Your task to perform on an android device: open app "Spotify: Music and Podcasts" Image 0: 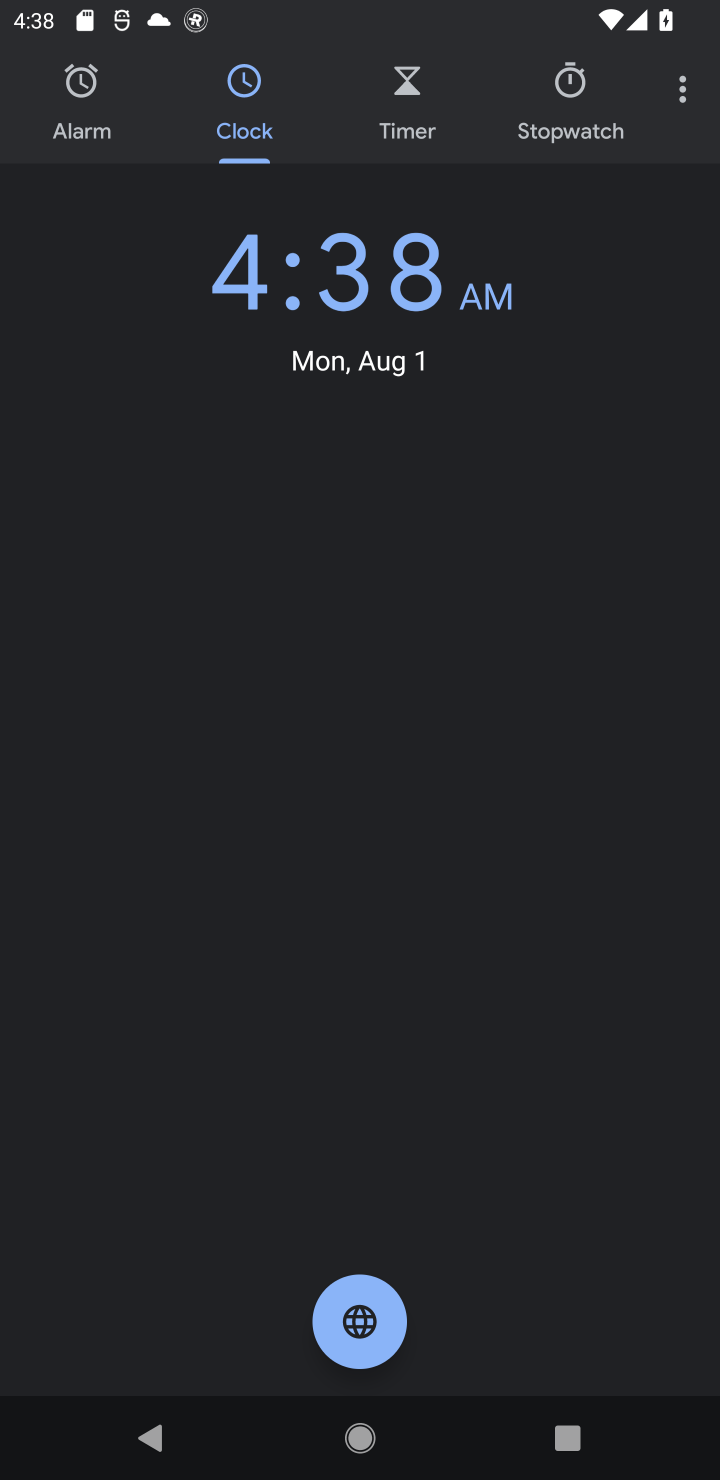
Step 0: press home button
Your task to perform on an android device: open app "Spotify: Music and Podcasts" Image 1: 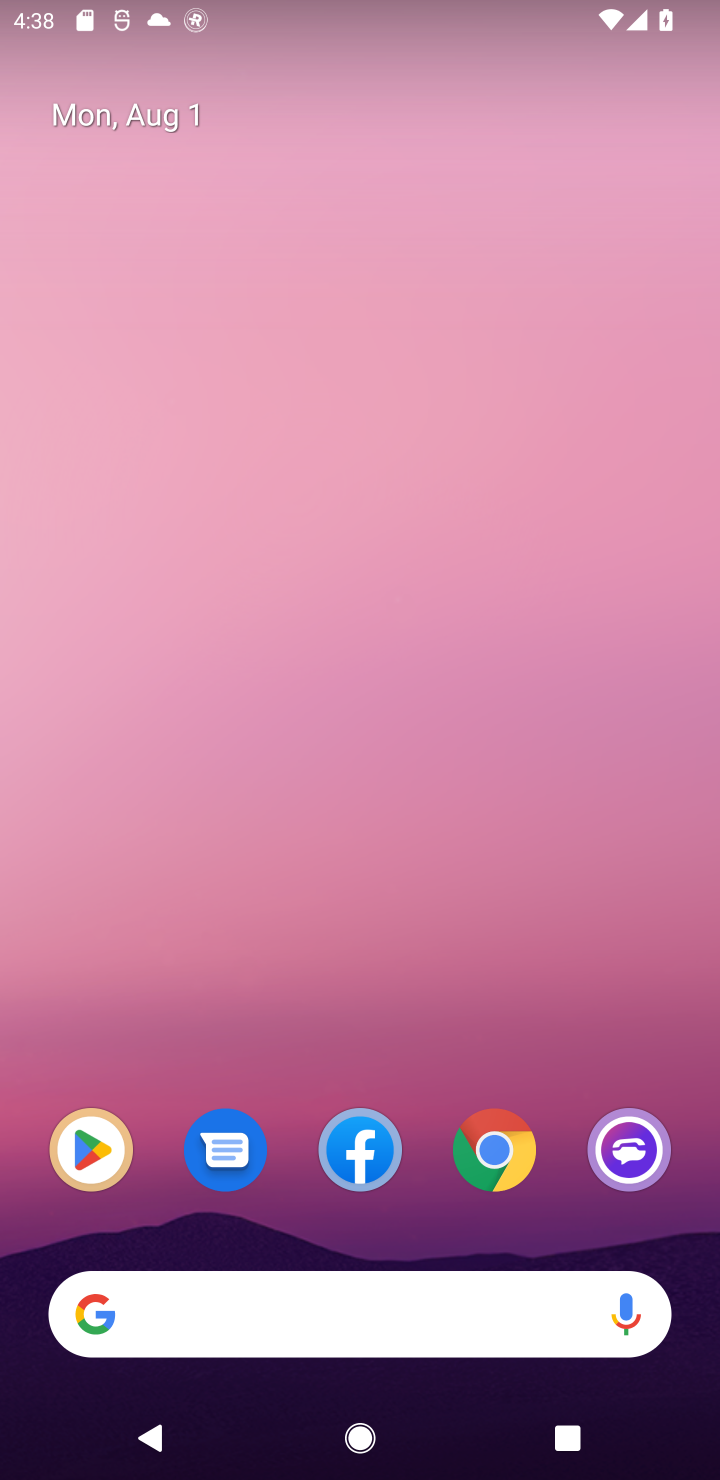
Step 1: click (110, 1142)
Your task to perform on an android device: open app "Spotify: Music and Podcasts" Image 2: 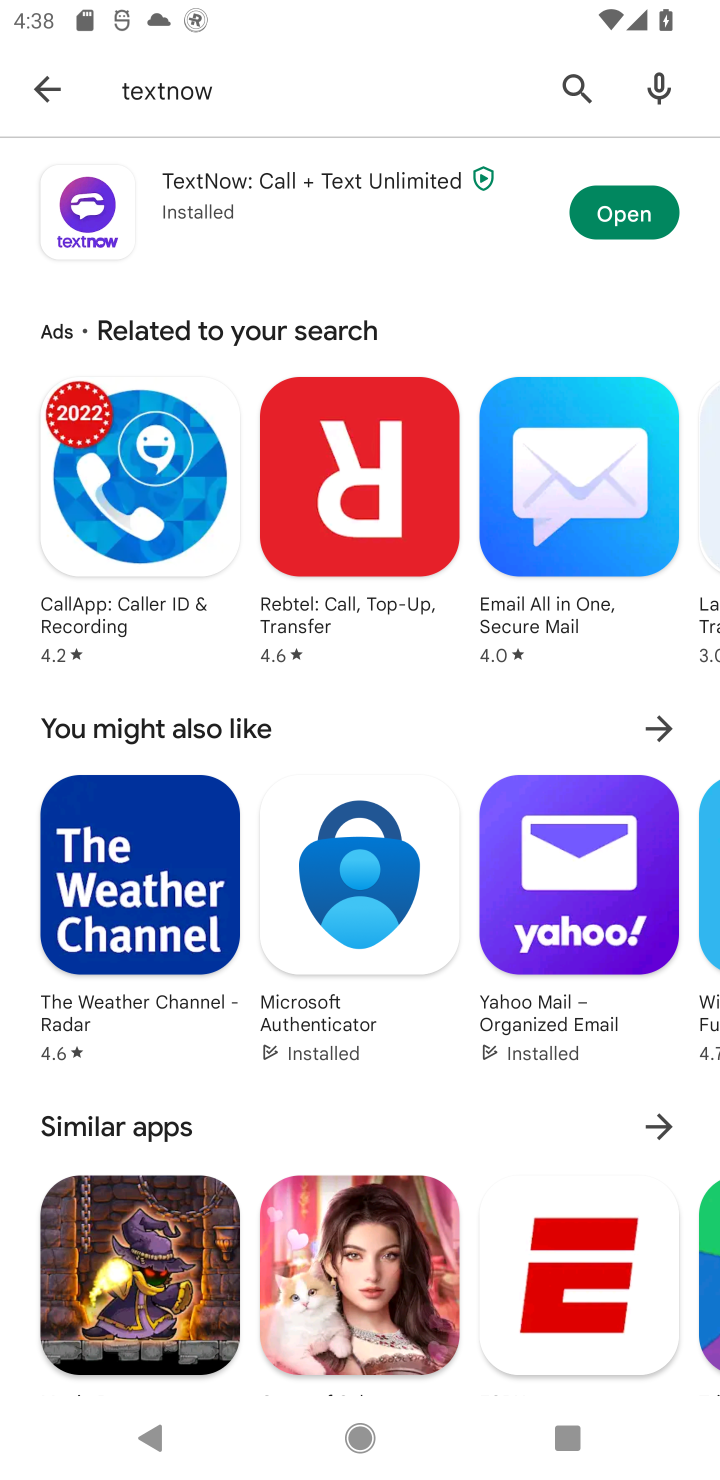
Step 2: click (578, 107)
Your task to perform on an android device: open app "Spotify: Music and Podcasts" Image 3: 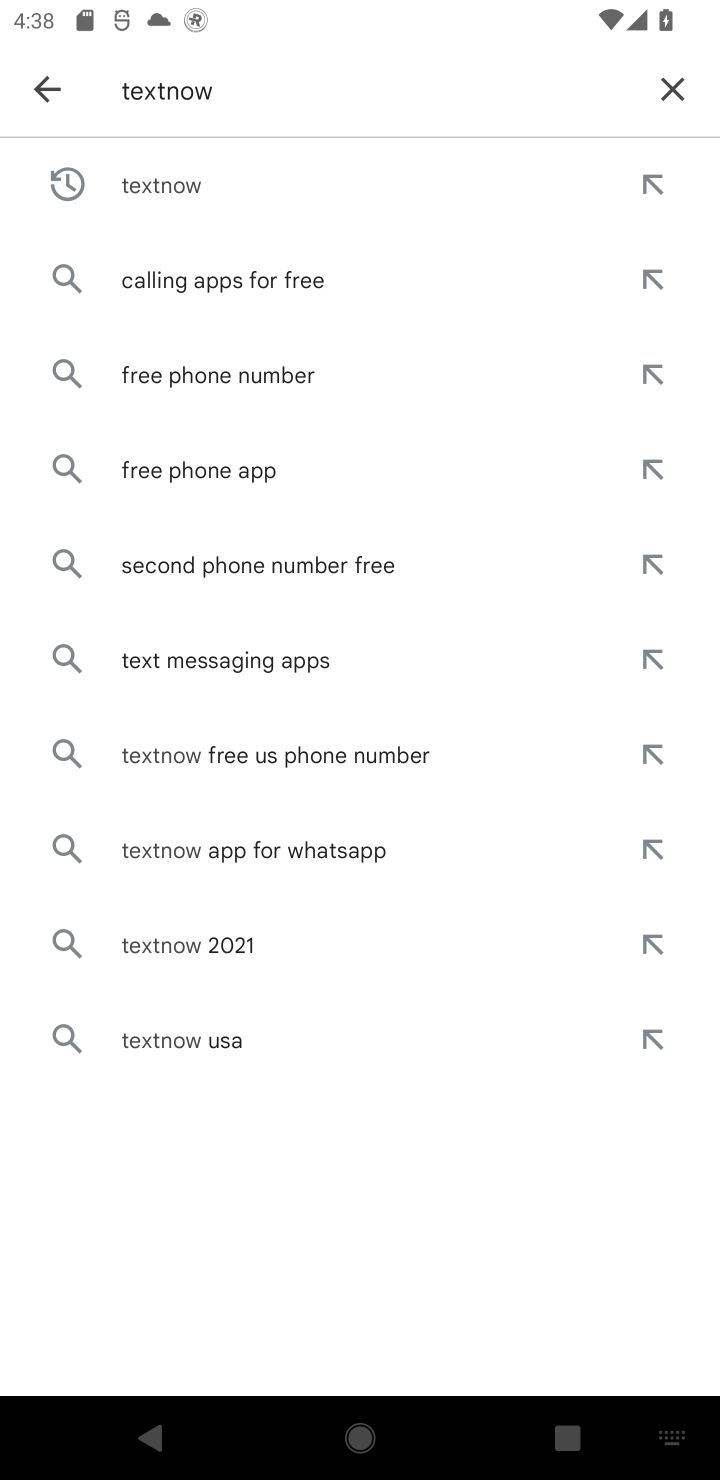
Step 3: click (674, 97)
Your task to perform on an android device: open app "Spotify: Music and Podcasts" Image 4: 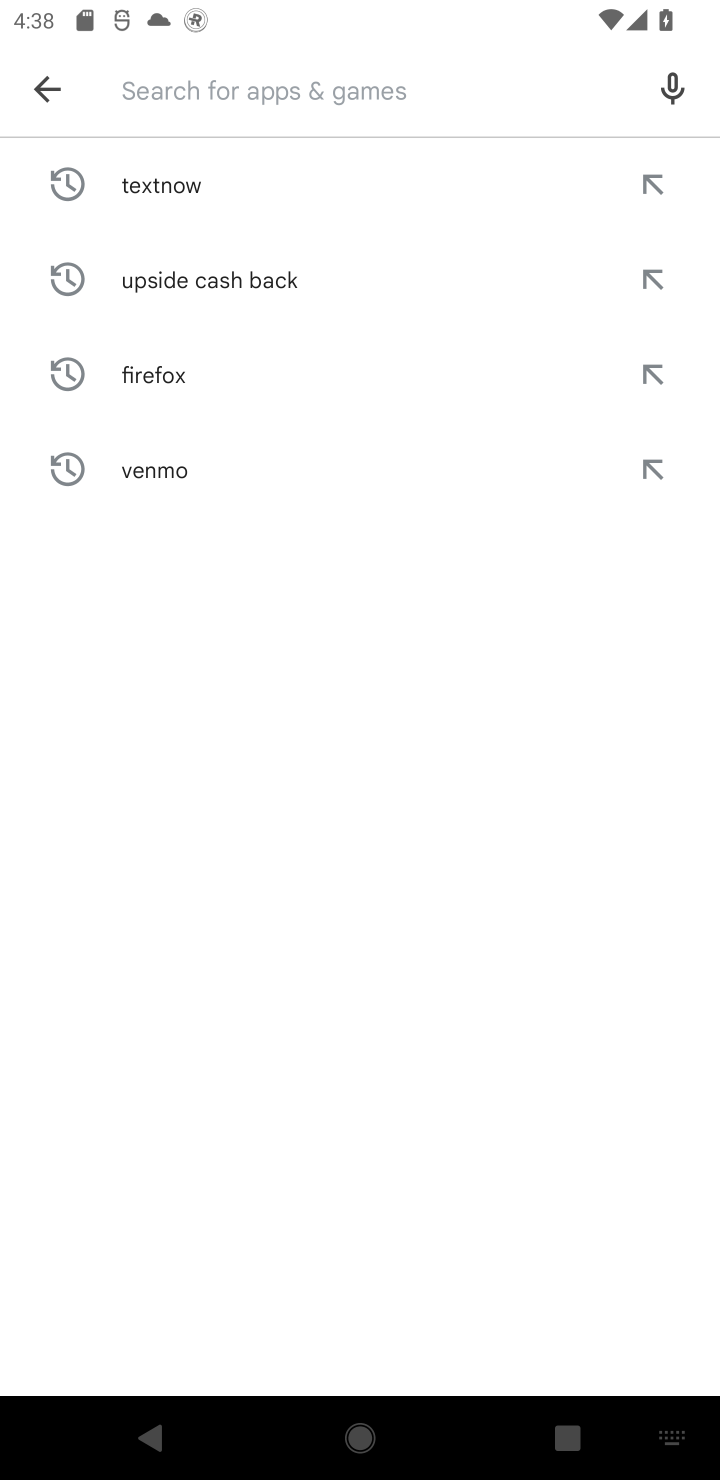
Step 4: type "spotify"
Your task to perform on an android device: open app "Spotify: Music and Podcasts" Image 5: 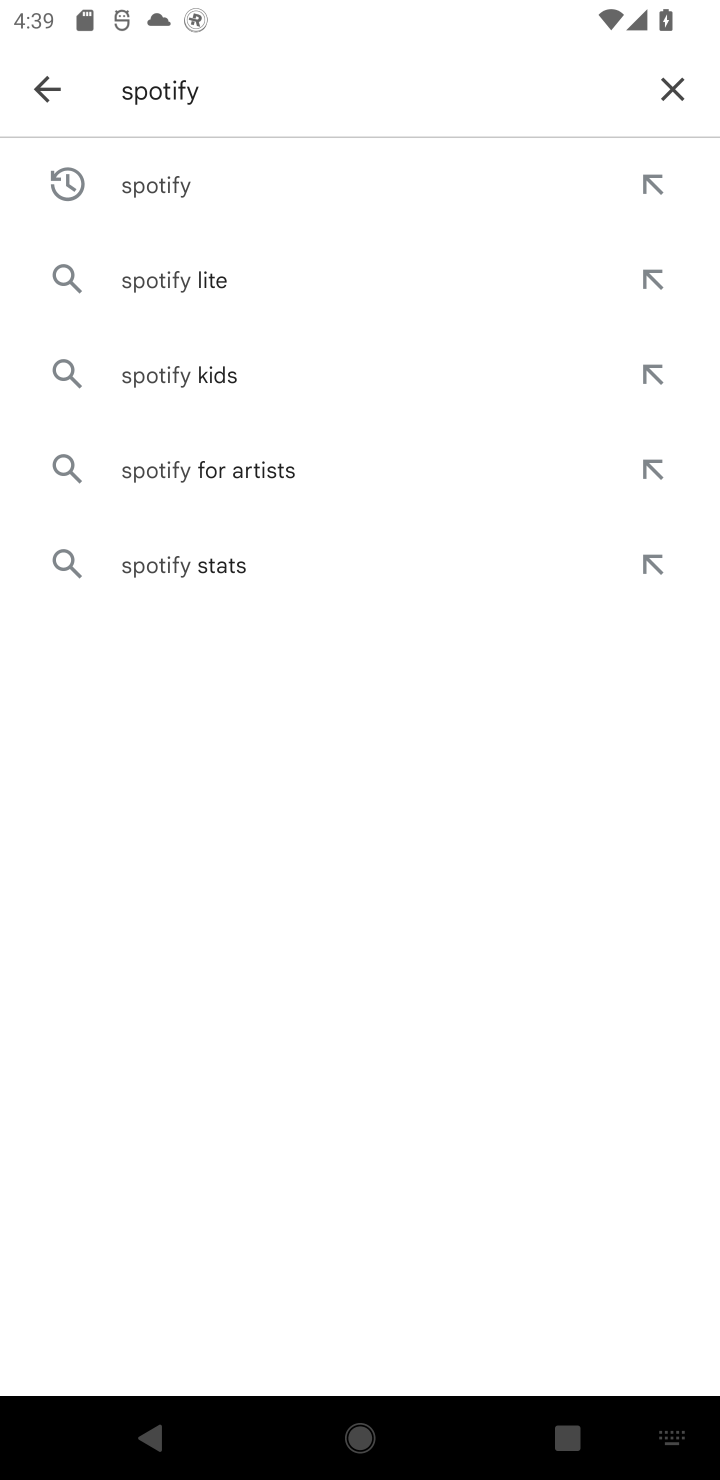
Step 5: click (216, 160)
Your task to perform on an android device: open app "Spotify: Music and Podcasts" Image 6: 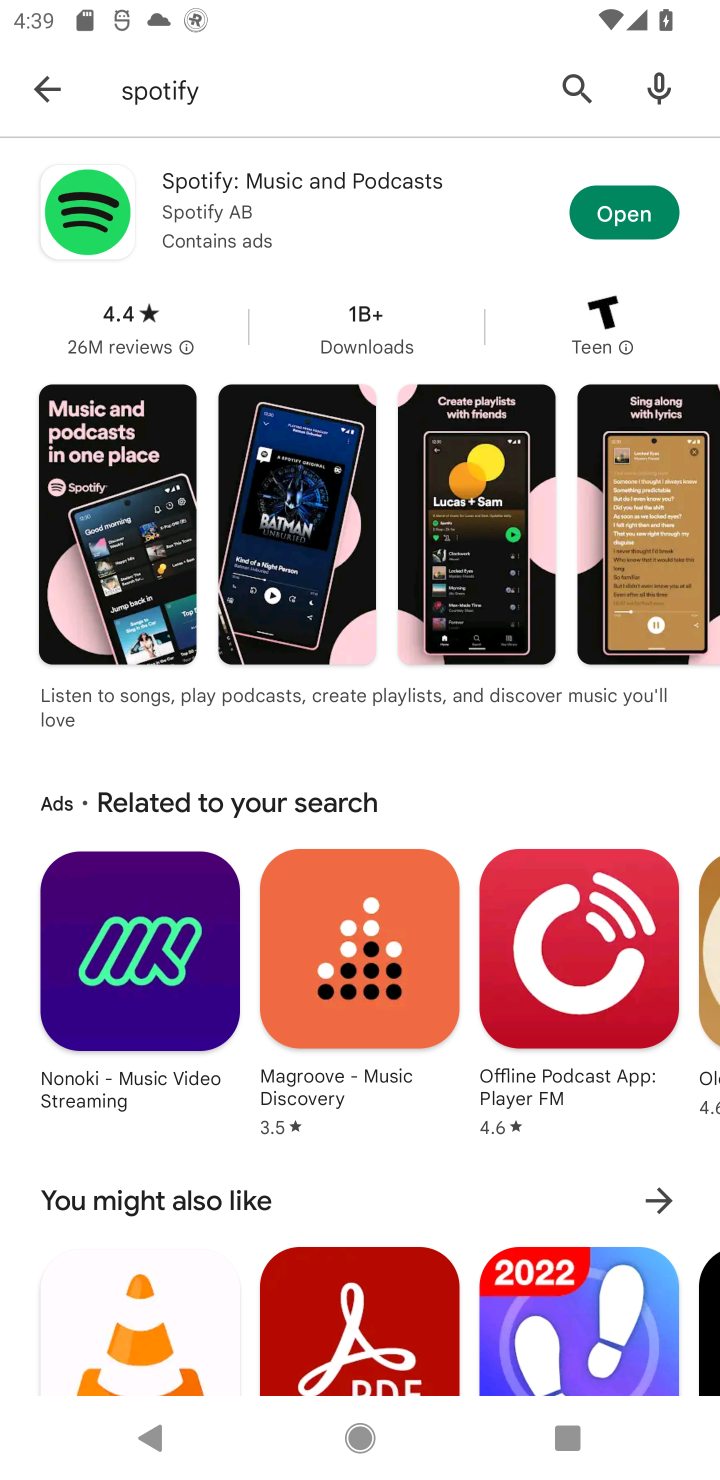
Step 6: click (607, 234)
Your task to perform on an android device: open app "Spotify: Music and Podcasts" Image 7: 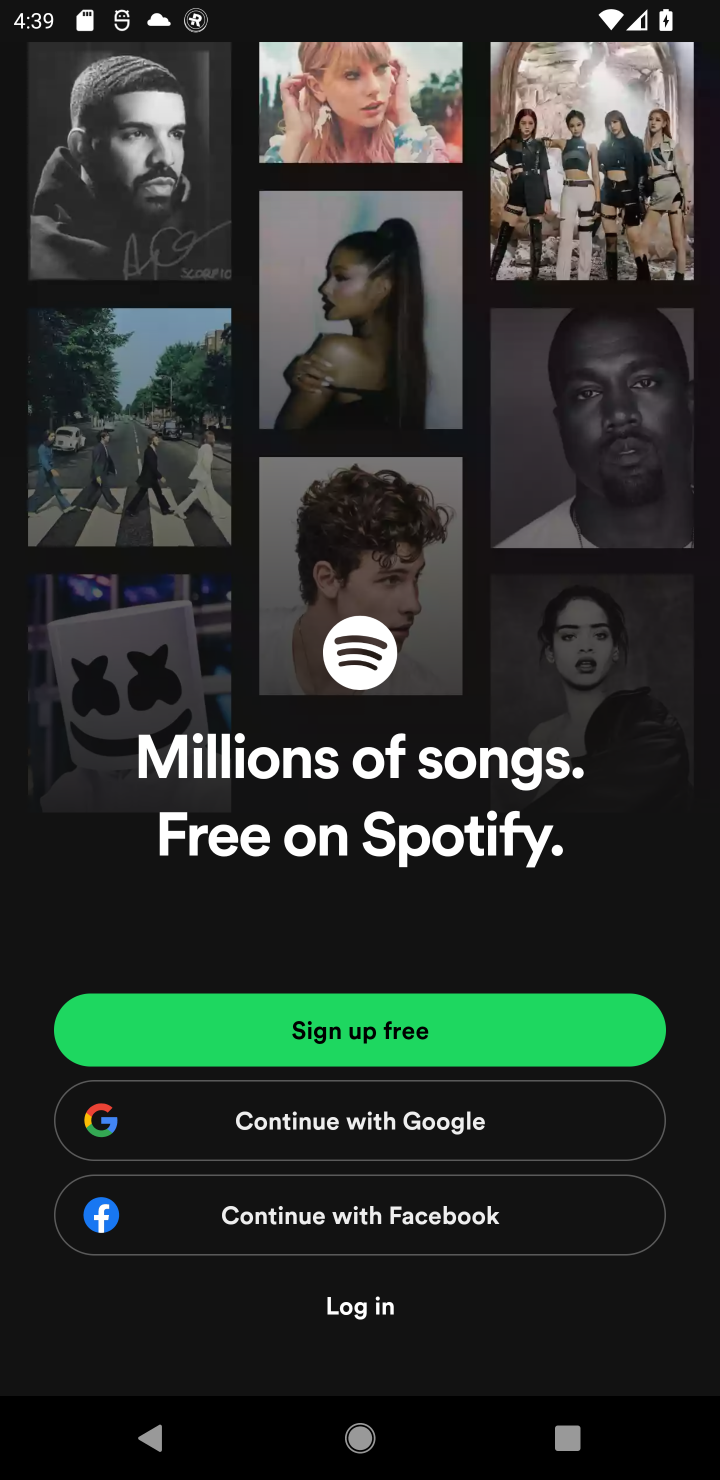
Step 7: task complete